Your task to perform on an android device: Go to Wikipedia Image 0: 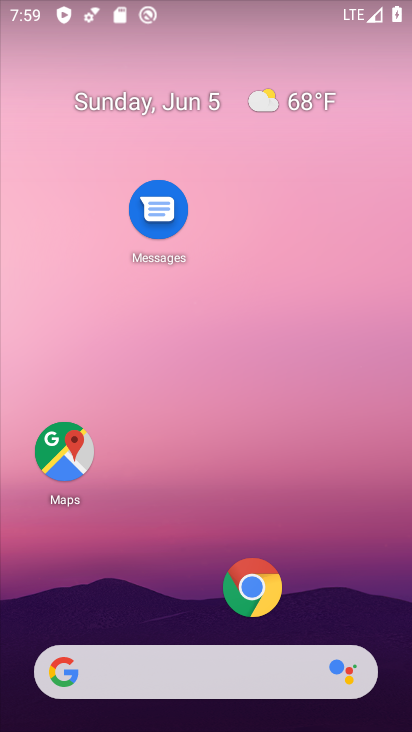
Step 0: click (247, 582)
Your task to perform on an android device: Go to Wikipedia Image 1: 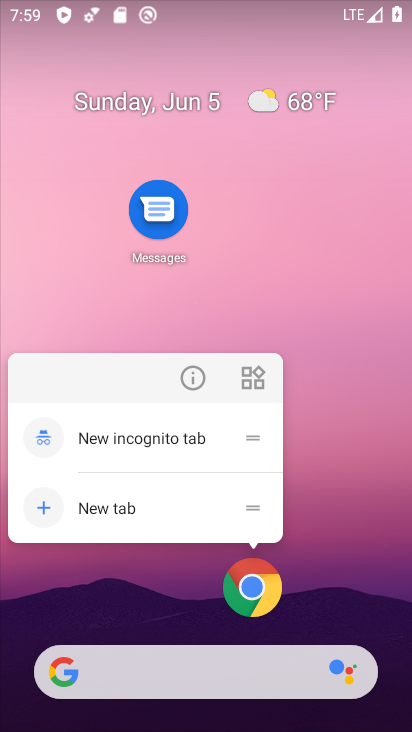
Step 1: click (248, 582)
Your task to perform on an android device: Go to Wikipedia Image 2: 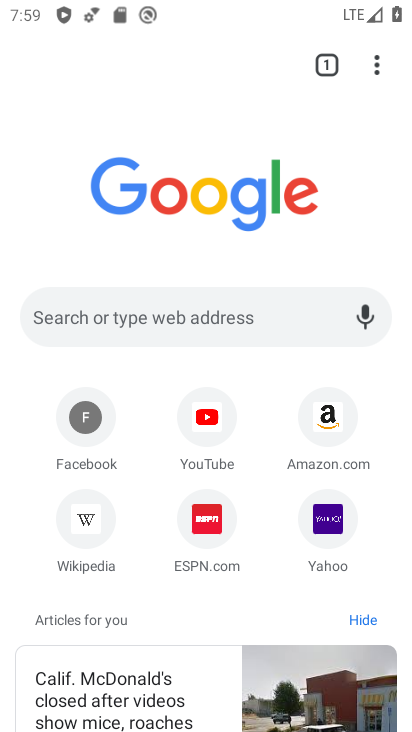
Step 2: click (87, 515)
Your task to perform on an android device: Go to Wikipedia Image 3: 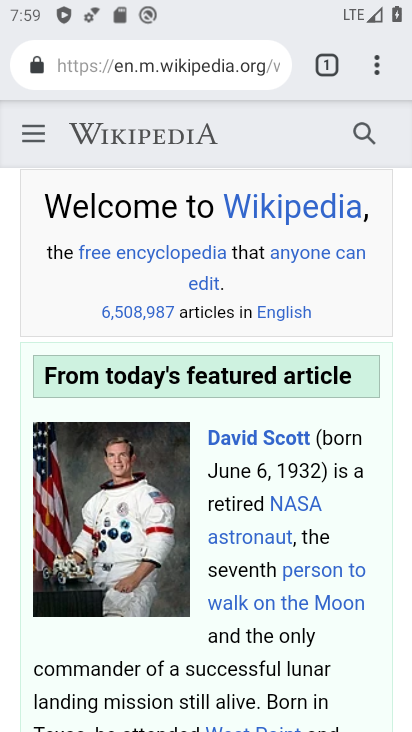
Step 3: task complete